Your task to perform on an android device: Go to network settings Image 0: 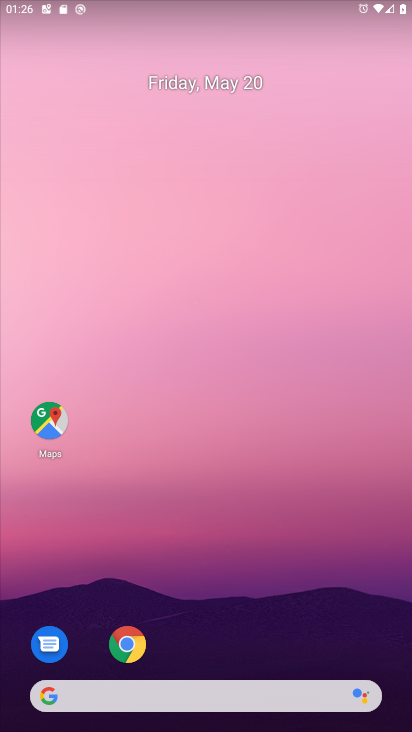
Step 0: drag from (225, 671) to (244, 148)
Your task to perform on an android device: Go to network settings Image 1: 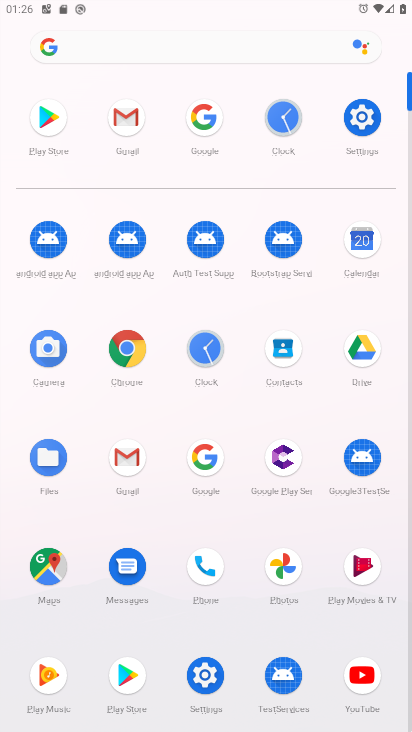
Step 1: click (367, 117)
Your task to perform on an android device: Go to network settings Image 2: 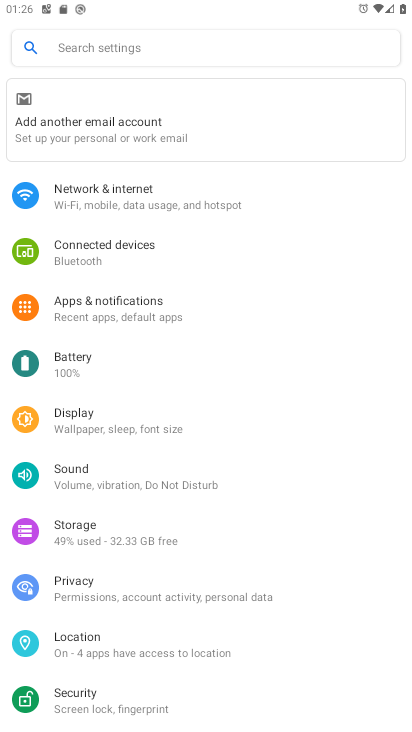
Step 2: click (146, 204)
Your task to perform on an android device: Go to network settings Image 3: 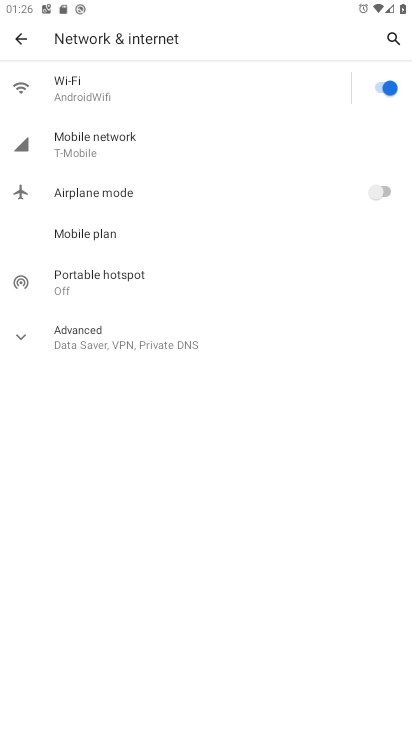
Step 3: click (128, 336)
Your task to perform on an android device: Go to network settings Image 4: 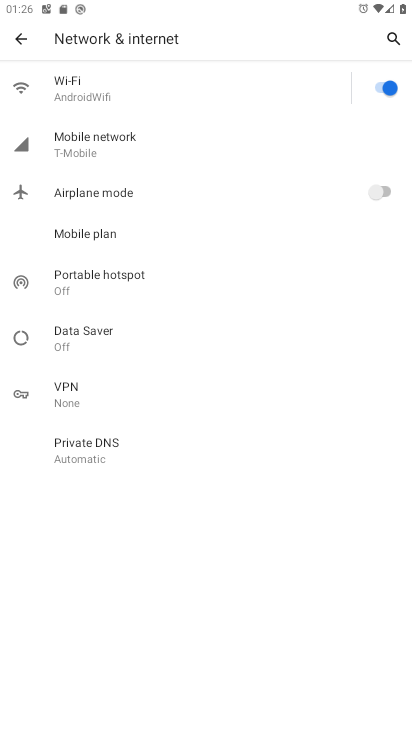
Step 4: task complete